Your task to perform on an android device: Toggle the flashlight Image 0: 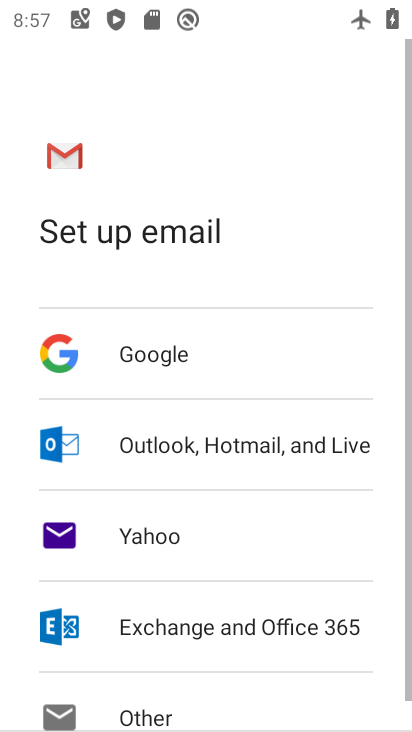
Step 0: drag from (223, 1) to (285, 470)
Your task to perform on an android device: Toggle the flashlight Image 1: 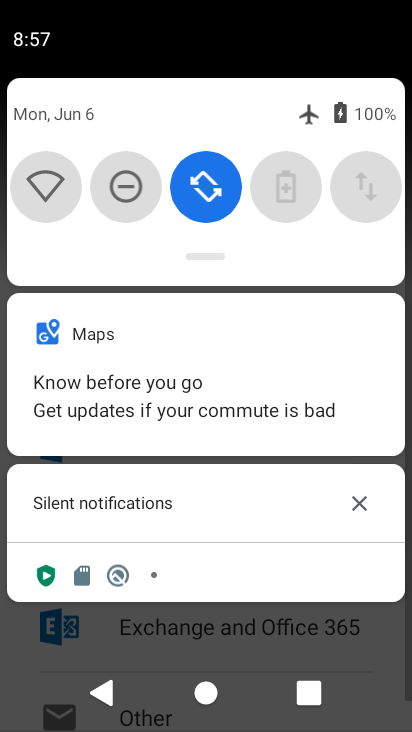
Step 1: task complete